Your task to perform on an android device: Go to Maps Image 0: 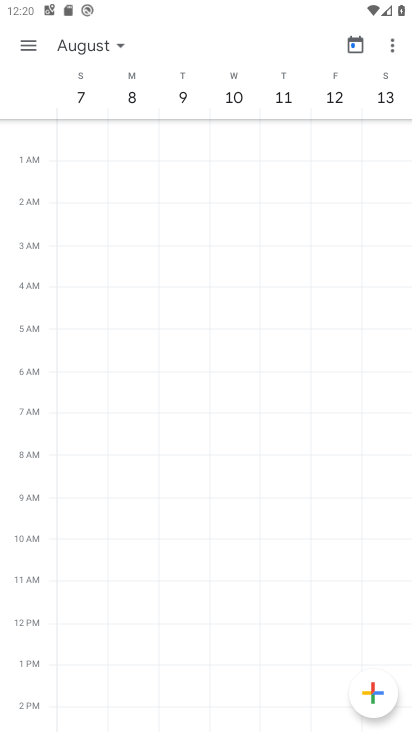
Step 0: press home button
Your task to perform on an android device: Go to Maps Image 1: 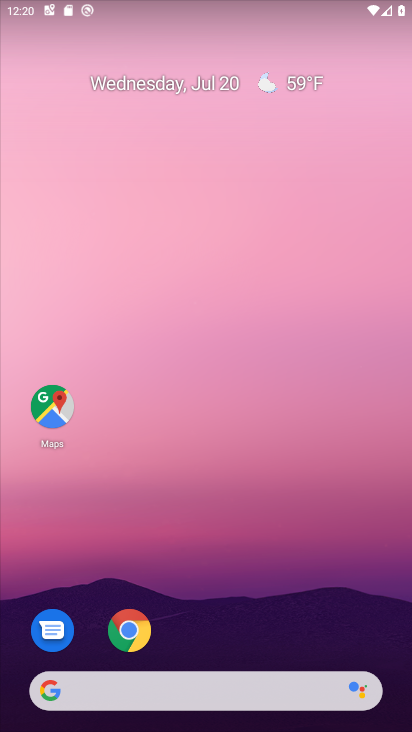
Step 1: click (50, 405)
Your task to perform on an android device: Go to Maps Image 2: 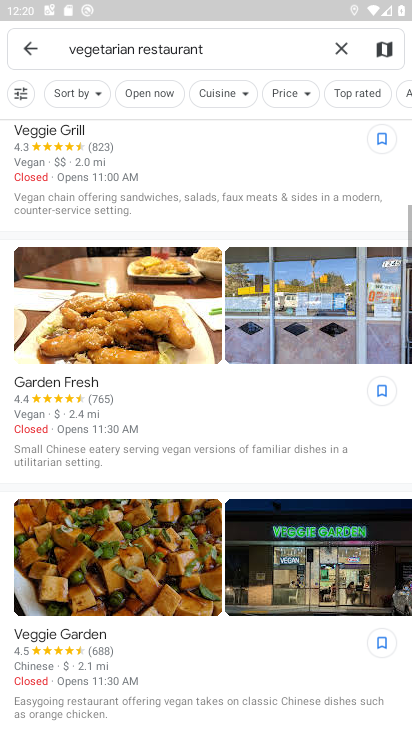
Step 2: click (342, 43)
Your task to perform on an android device: Go to Maps Image 3: 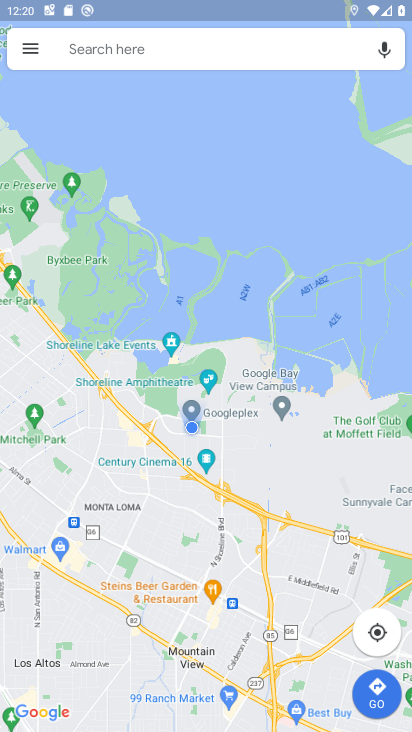
Step 3: task complete